Your task to perform on an android device: uninstall "Upside-Cash back on gas & food" Image 0: 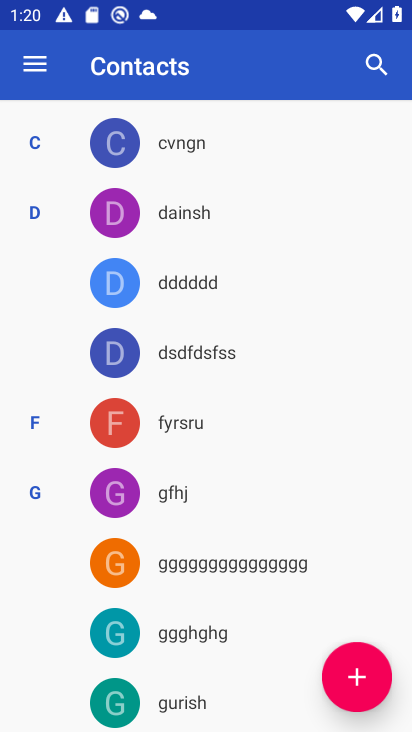
Step 0: press home button
Your task to perform on an android device: uninstall "Upside-Cash back on gas & food" Image 1: 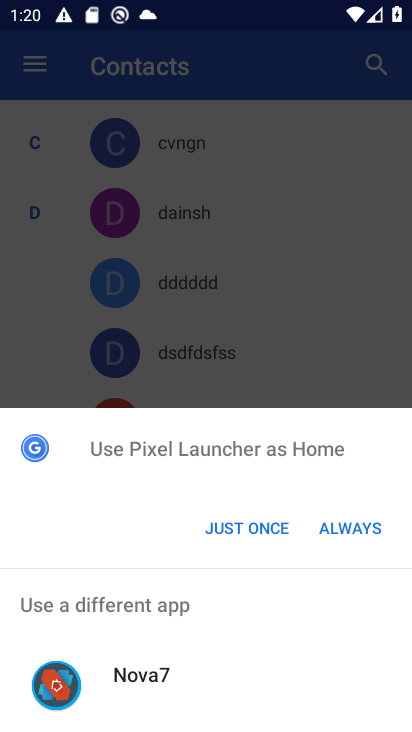
Step 1: click (362, 524)
Your task to perform on an android device: uninstall "Upside-Cash back on gas & food" Image 2: 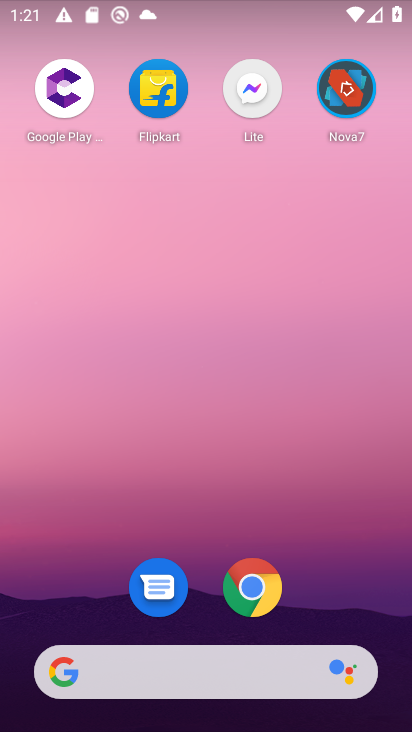
Step 2: drag from (199, 707) to (380, 0)
Your task to perform on an android device: uninstall "Upside-Cash back on gas & food" Image 3: 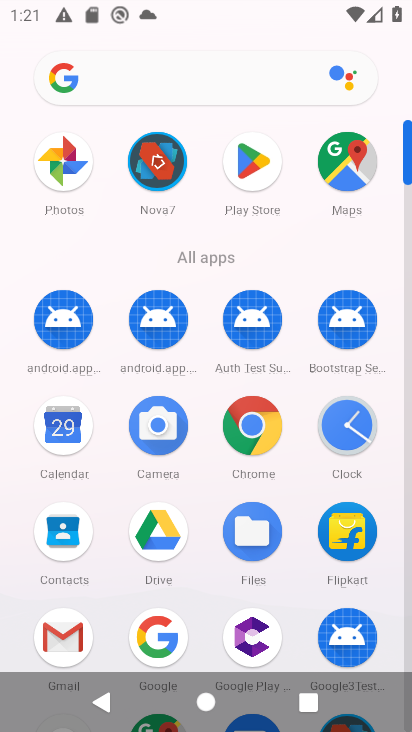
Step 3: click (256, 153)
Your task to perform on an android device: uninstall "Upside-Cash back on gas & food" Image 4: 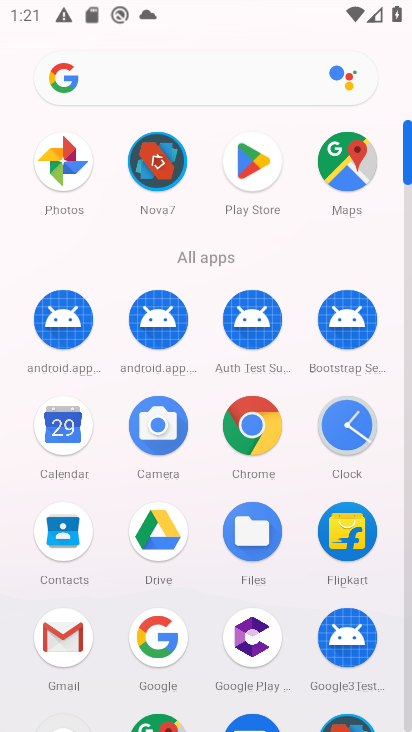
Step 4: click (256, 153)
Your task to perform on an android device: uninstall "Upside-Cash back on gas & food" Image 5: 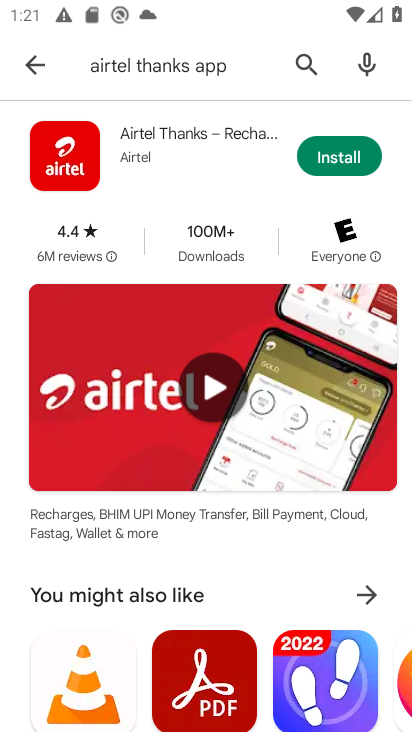
Step 5: click (309, 61)
Your task to perform on an android device: uninstall "Upside-Cash back on gas & food" Image 6: 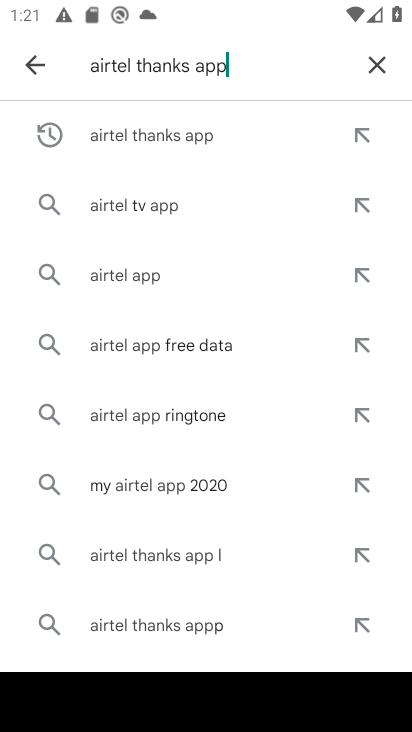
Step 6: click (361, 63)
Your task to perform on an android device: uninstall "Upside-Cash back on gas & food" Image 7: 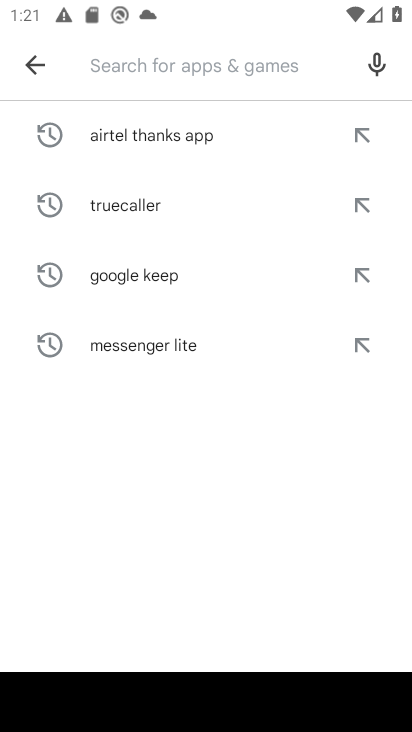
Step 7: type "Upside-Cash back on gas & food"
Your task to perform on an android device: uninstall "Upside-Cash back on gas & food" Image 8: 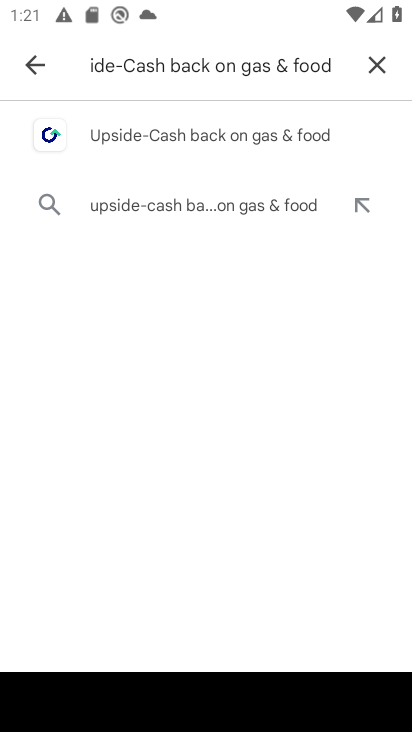
Step 8: click (295, 120)
Your task to perform on an android device: uninstall "Upside-Cash back on gas & food" Image 9: 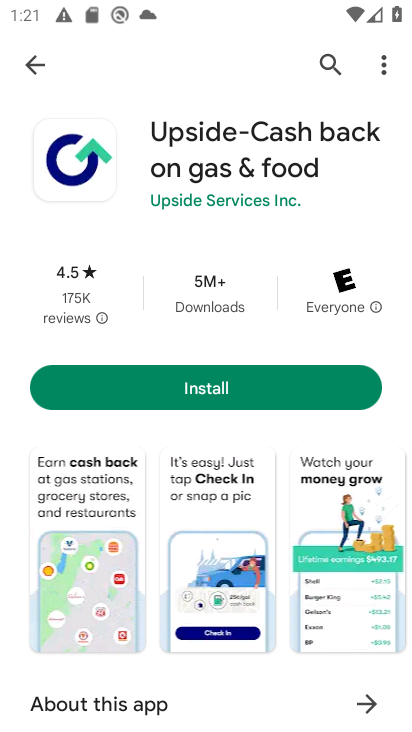
Step 9: task complete